Your task to perform on an android device: turn on sleep mode Image 0: 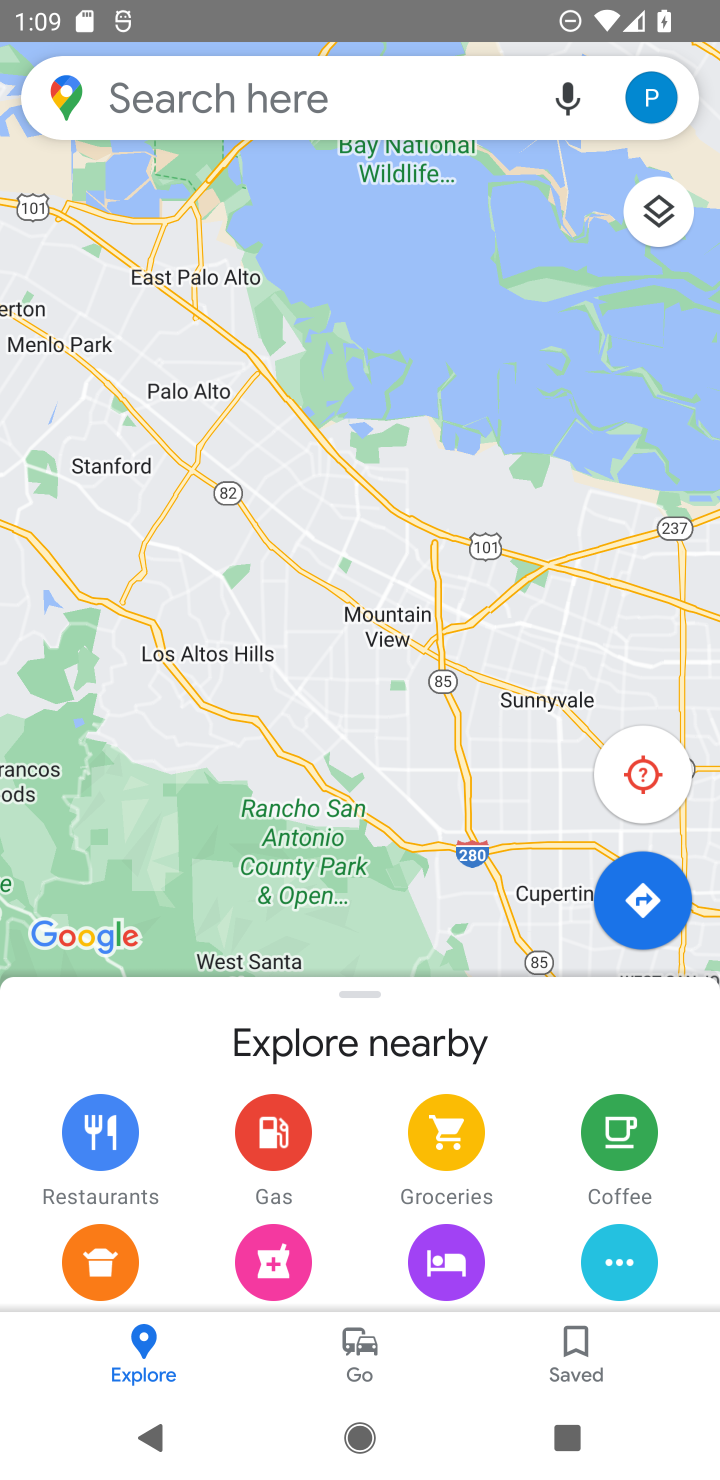
Step 0: press home button
Your task to perform on an android device: turn on sleep mode Image 1: 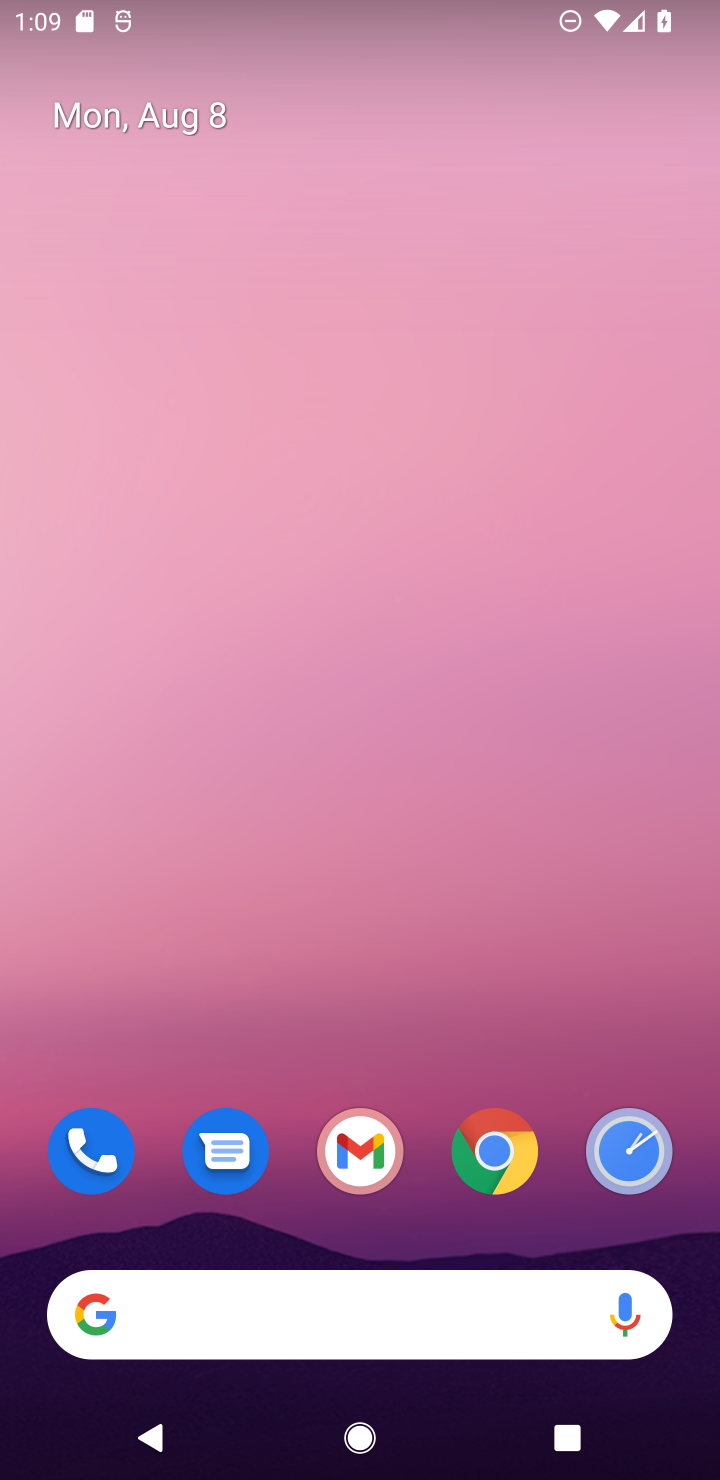
Step 1: drag from (291, 1223) to (315, 440)
Your task to perform on an android device: turn on sleep mode Image 2: 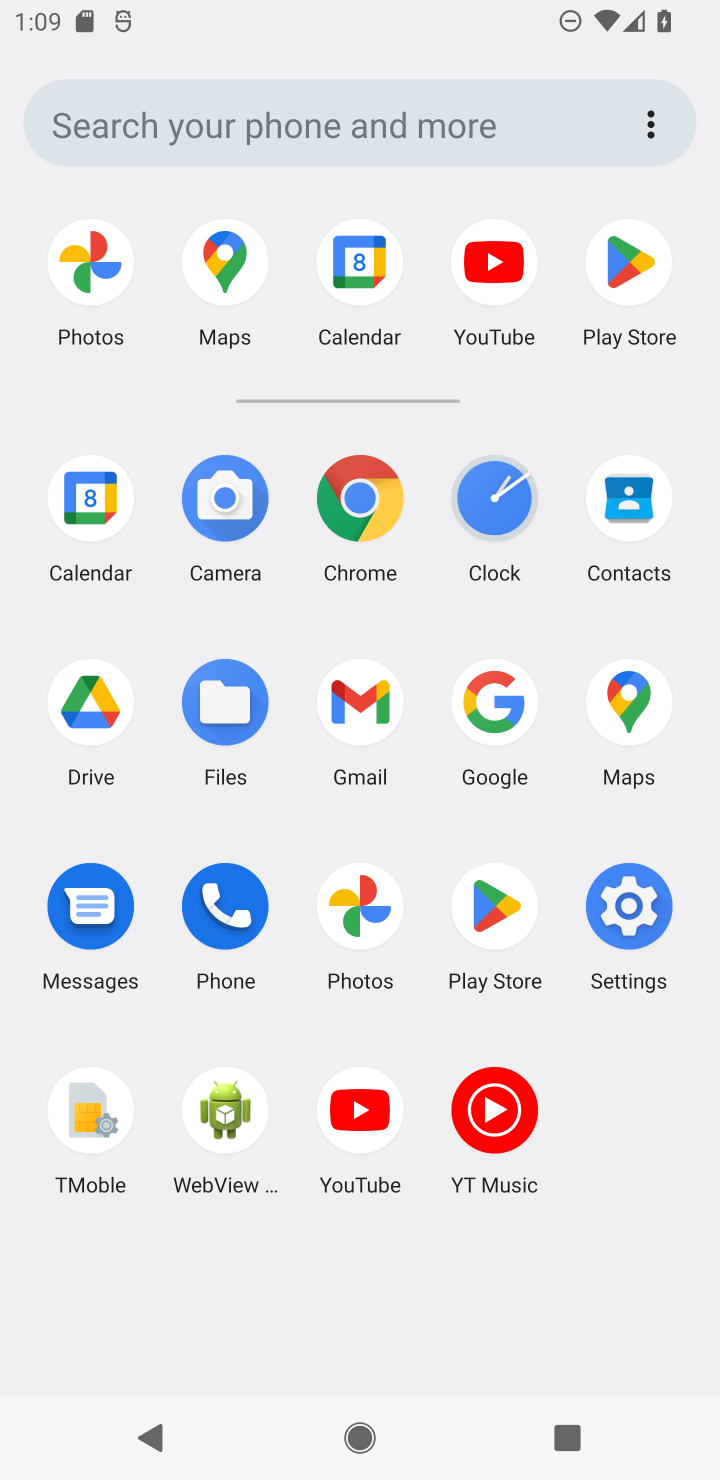
Step 2: click (636, 907)
Your task to perform on an android device: turn on sleep mode Image 3: 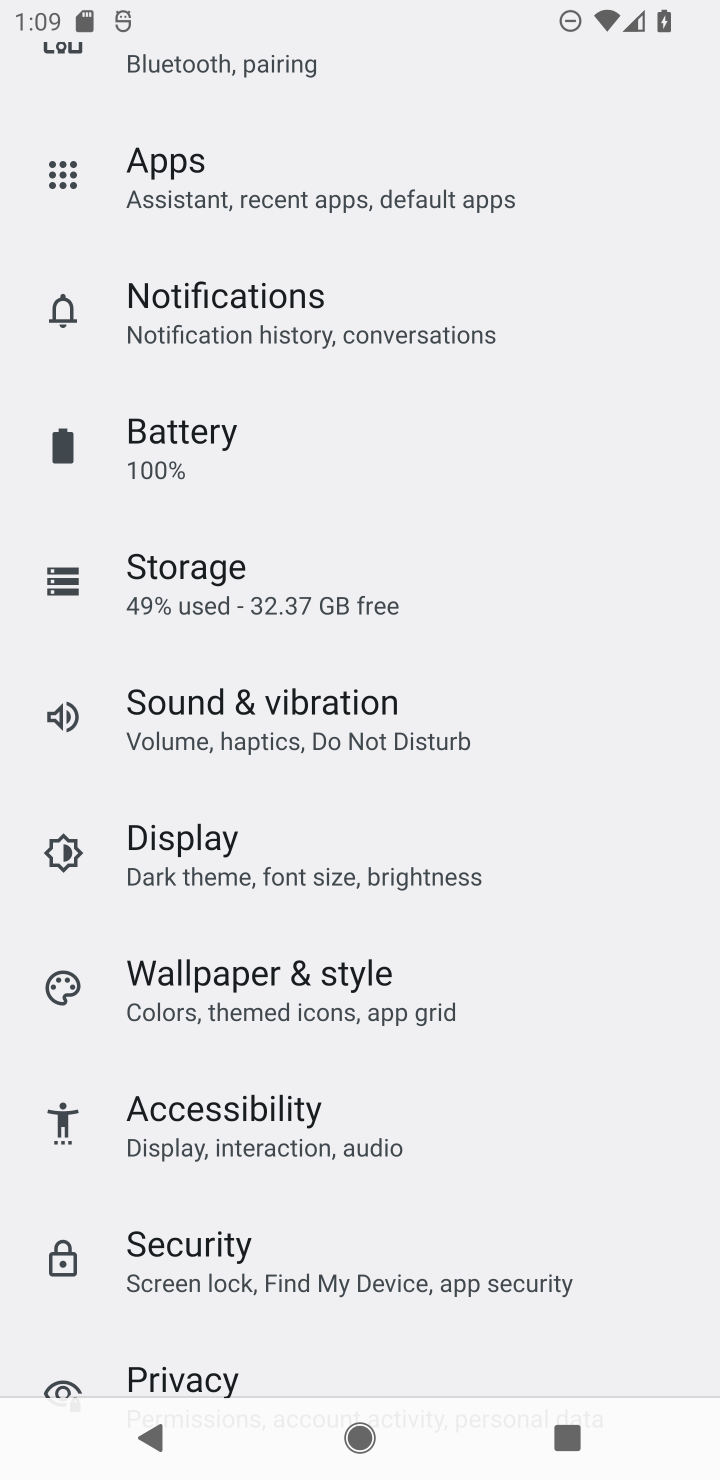
Step 3: click (183, 861)
Your task to perform on an android device: turn on sleep mode Image 4: 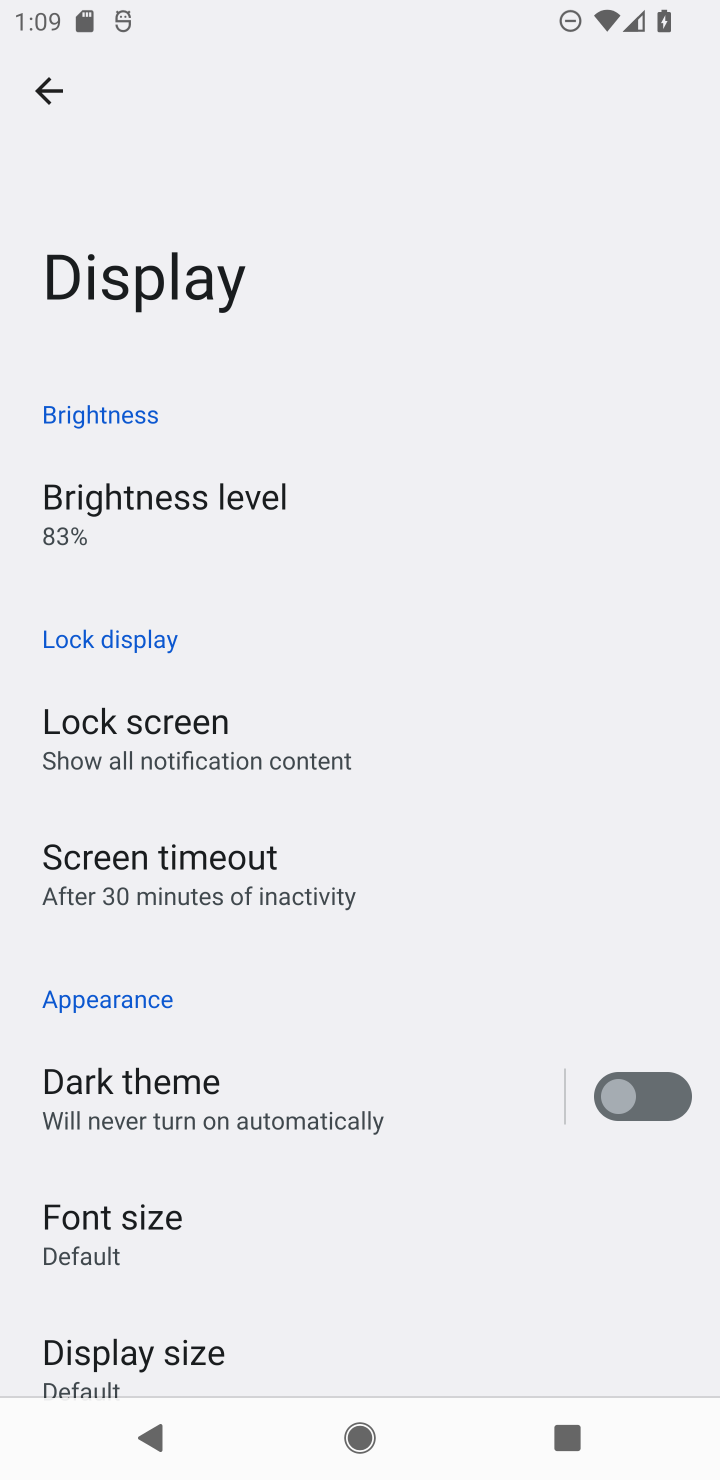
Step 4: click (165, 866)
Your task to perform on an android device: turn on sleep mode Image 5: 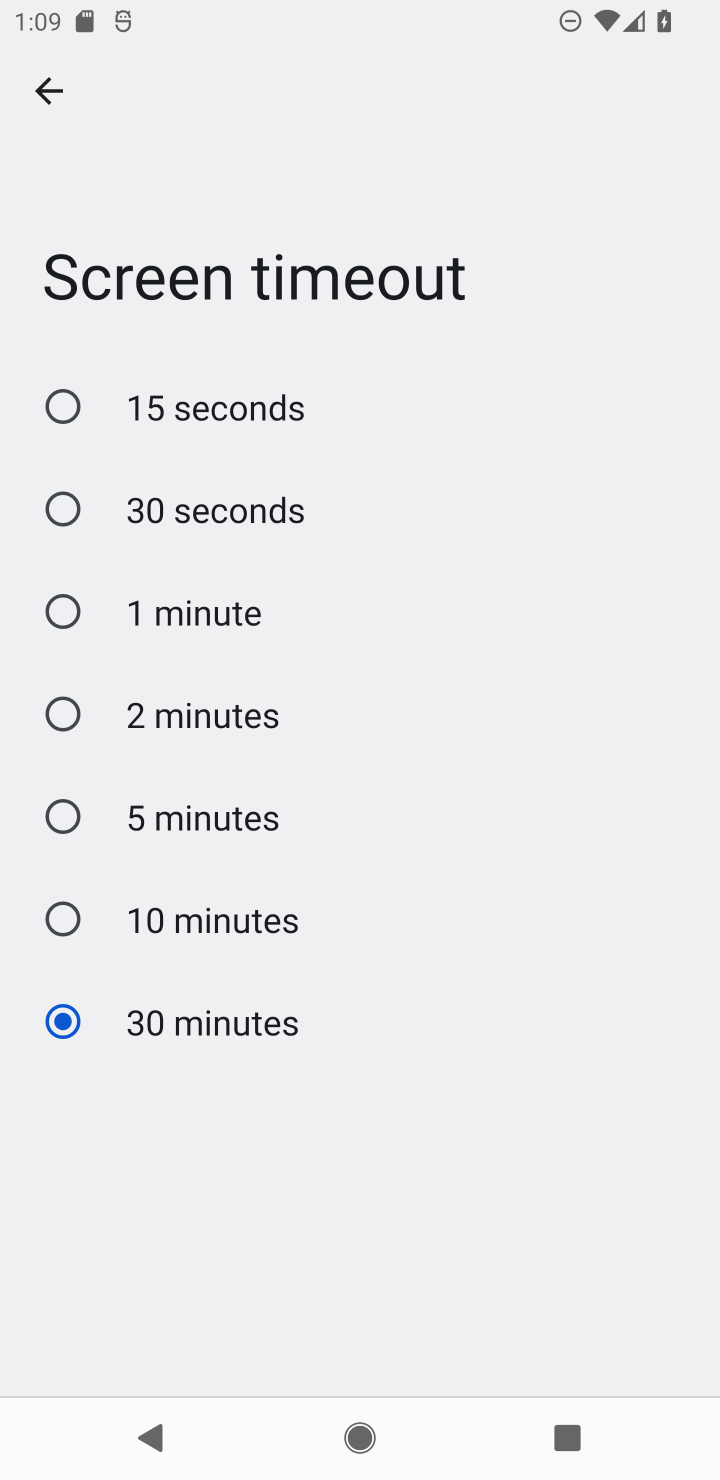
Step 5: click (175, 401)
Your task to perform on an android device: turn on sleep mode Image 6: 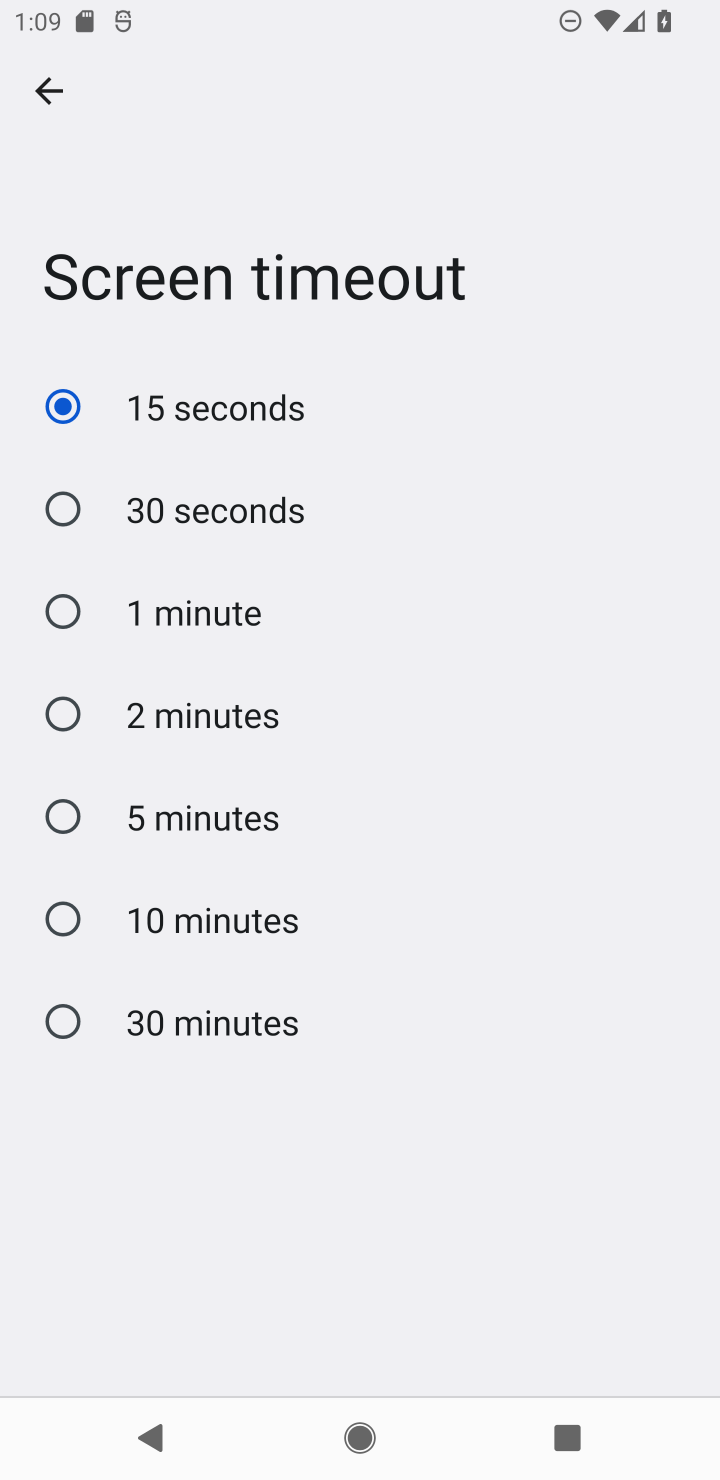
Step 6: task complete